Your task to perform on an android device: Go to CNN.com Image 0: 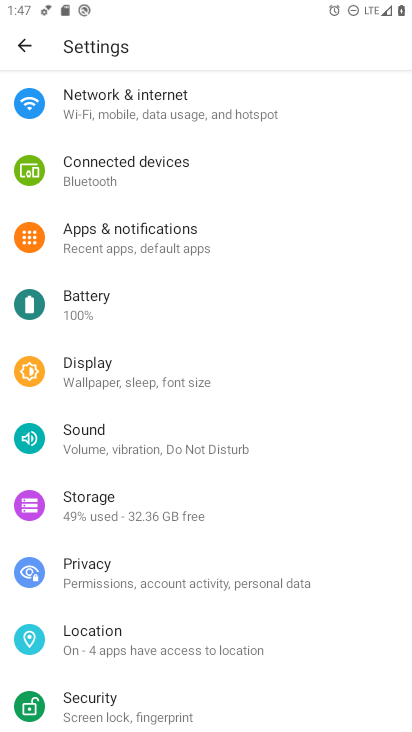
Step 0: press home button
Your task to perform on an android device: Go to CNN.com Image 1: 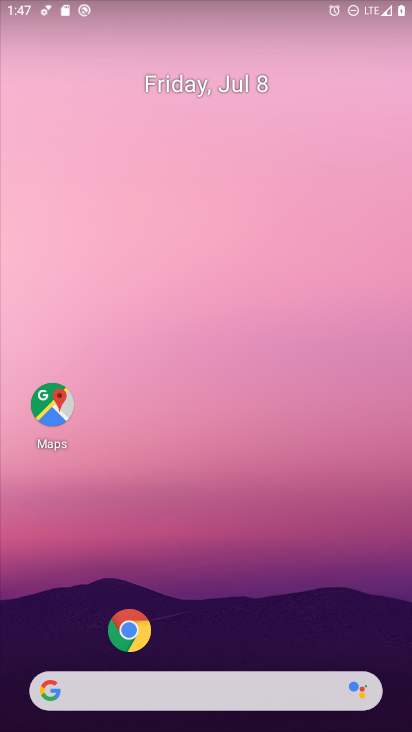
Step 1: press home button
Your task to perform on an android device: Go to CNN.com Image 2: 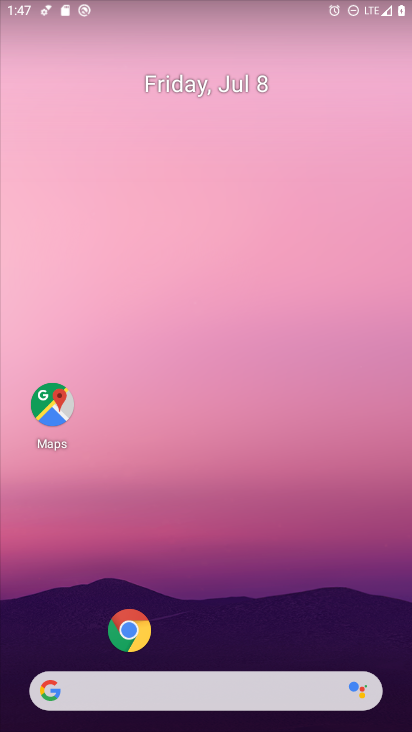
Step 2: drag from (302, 666) to (326, 76)
Your task to perform on an android device: Go to CNN.com Image 3: 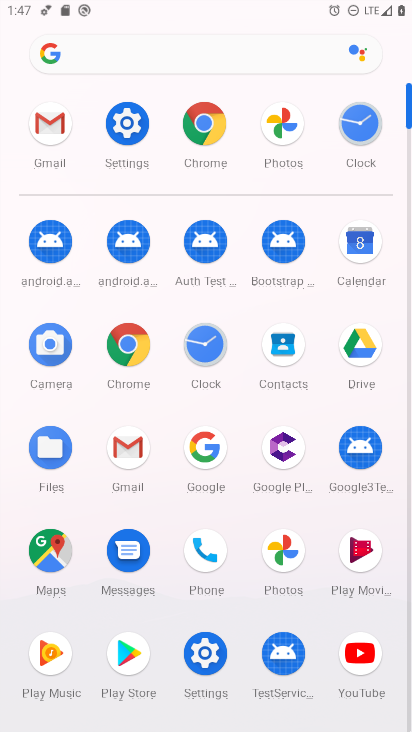
Step 3: click (119, 343)
Your task to perform on an android device: Go to CNN.com Image 4: 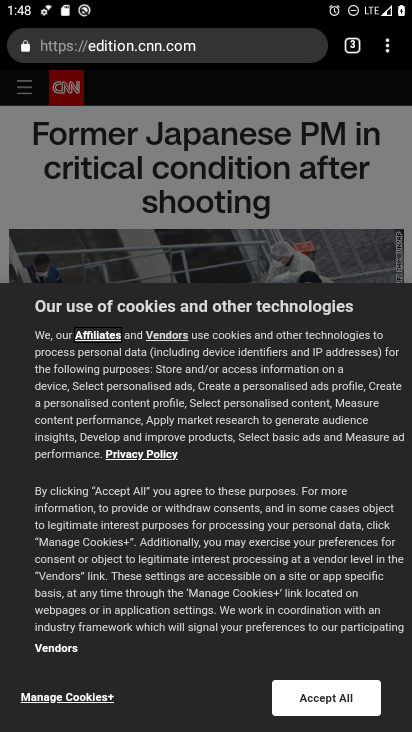
Step 4: task complete